Your task to perform on an android device: empty trash in the gmail app Image 0: 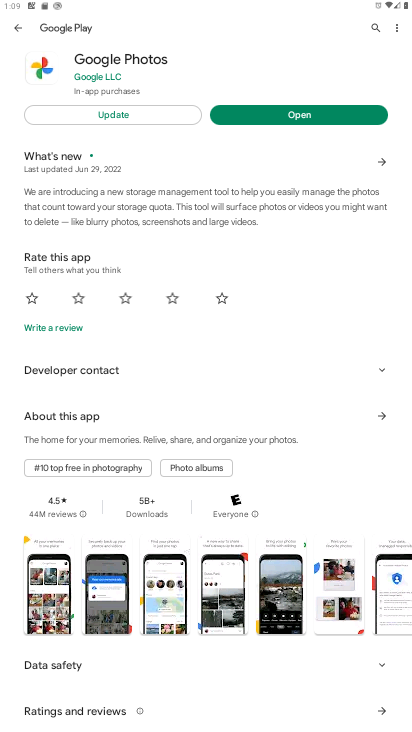
Step 0: press home button
Your task to perform on an android device: empty trash in the gmail app Image 1: 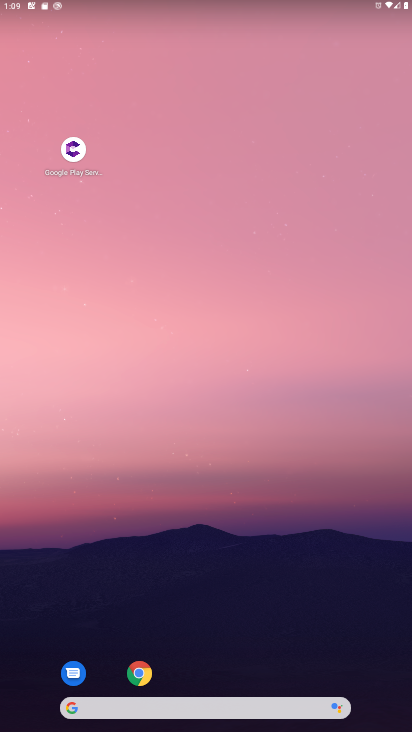
Step 1: drag from (188, 592) to (188, 193)
Your task to perform on an android device: empty trash in the gmail app Image 2: 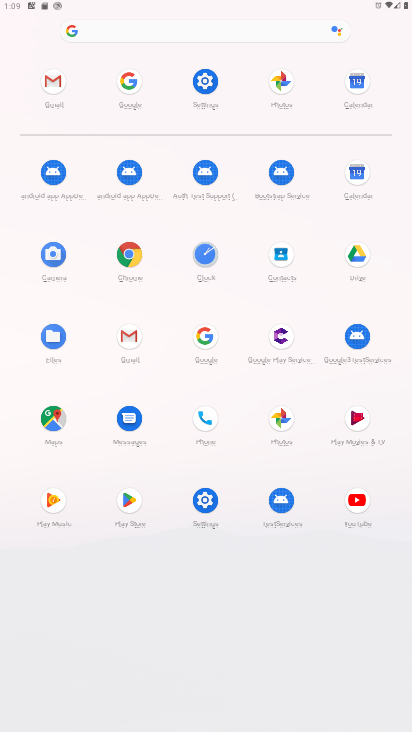
Step 2: click (128, 337)
Your task to perform on an android device: empty trash in the gmail app Image 3: 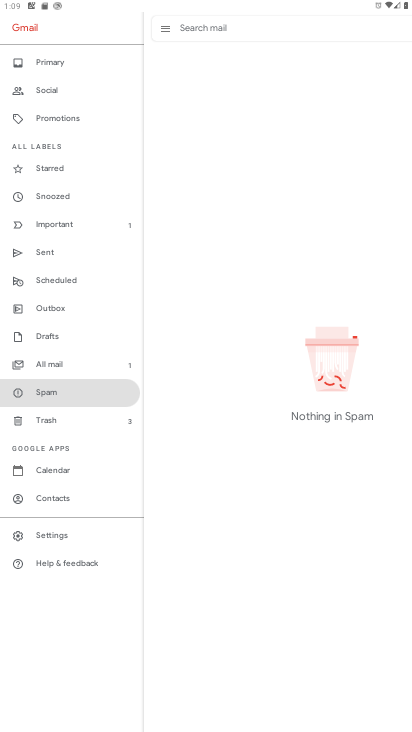
Step 3: click (43, 428)
Your task to perform on an android device: empty trash in the gmail app Image 4: 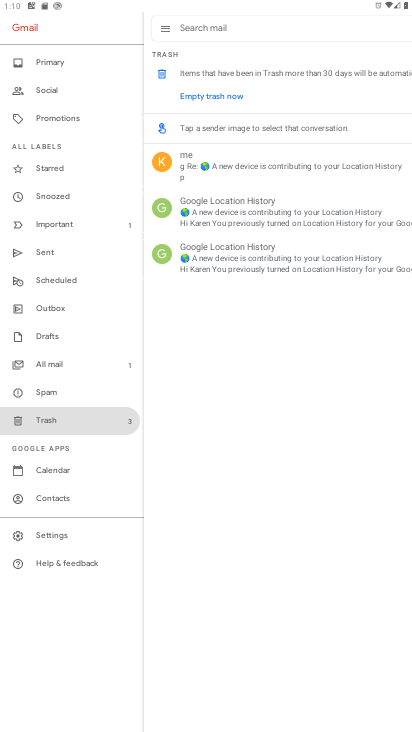
Step 4: click (210, 100)
Your task to perform on an android device: empty trash in the gmail app Image 5: 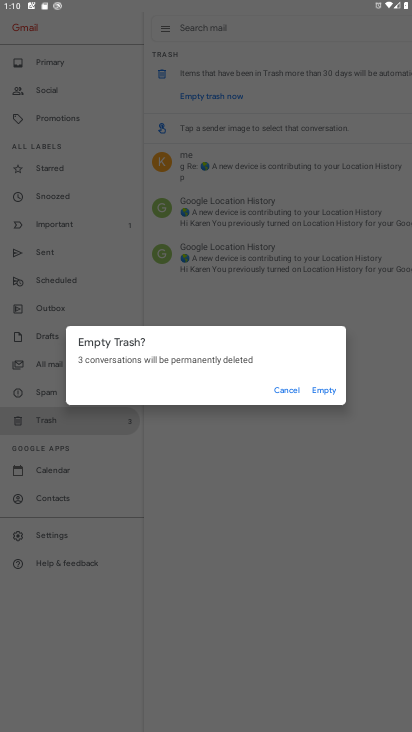
Step 5: click (313, 383)
Your task to perform on an android device: empty trash in the gmail app Image 6: 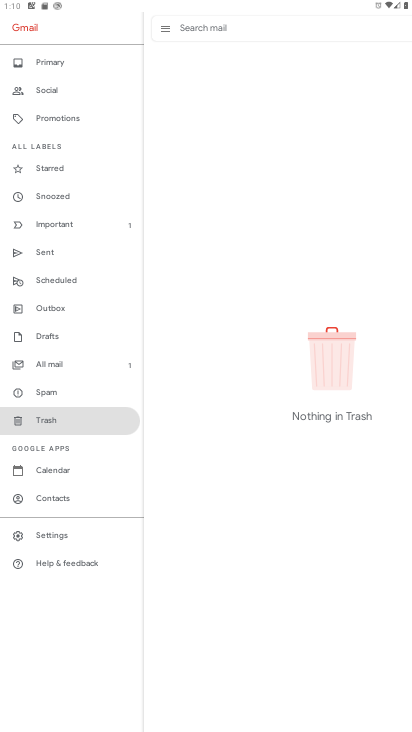
Step 6: task complete